Your task to perform on an android device: When is my next meeting? Image 0: 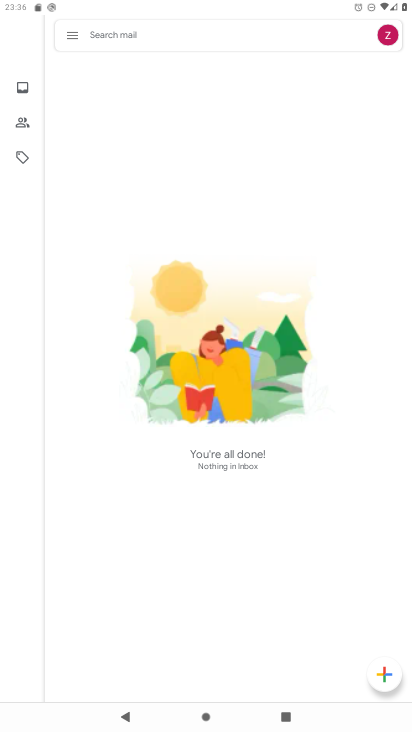
Step 0: press home button
Your task to perform on an android device: When is my next meeting? Image 1: 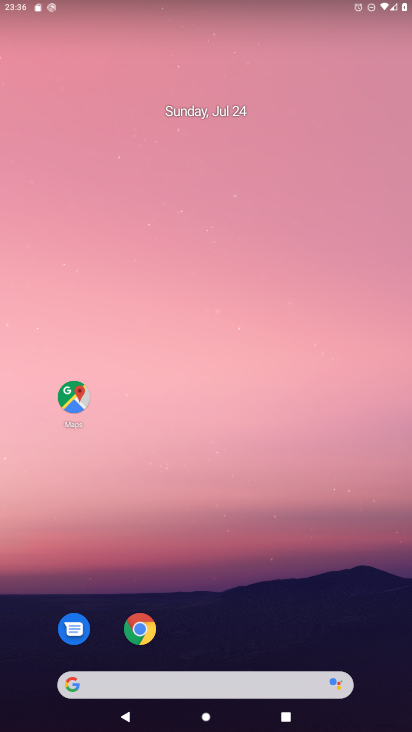
Step 1: drag from (202, 668) to (275, 294)
Your task to perform on an android device: When is my next meeting? Image 2: 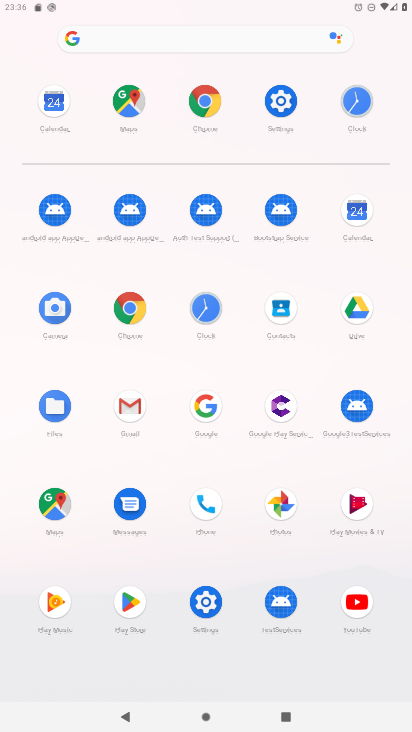
Step 2: drag from (159, 641) to (214, 367)
Your task to perform on an android device: When is my next meeting? Image 3: 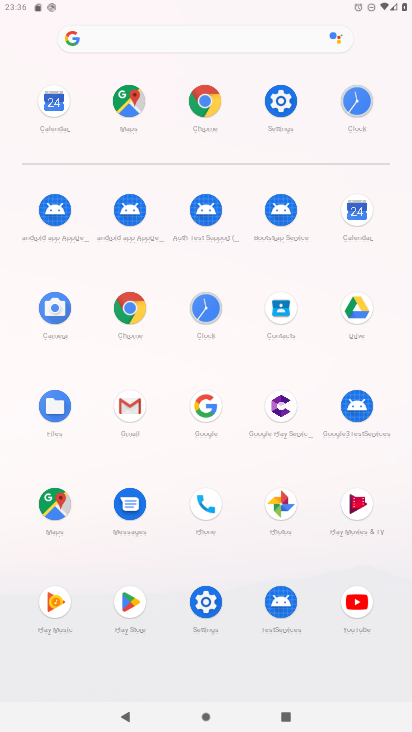
Step 3: click (353, 216)
Your task to perform on an android device: When is my next meeting? Image 4: 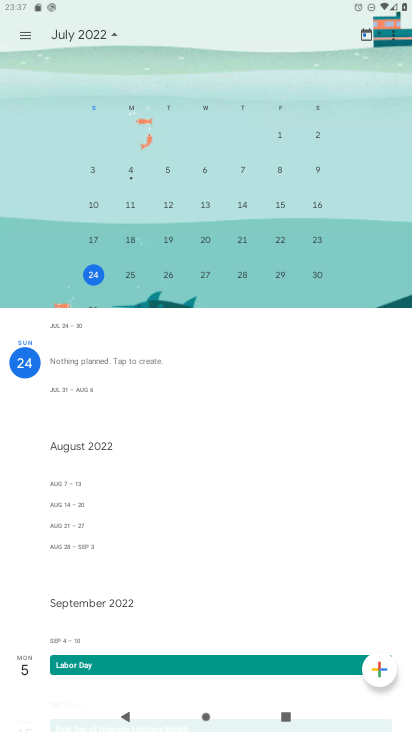
Step 4: click (95, 274)
Your task to perform on an android device: When is my next meeting? Image 5: 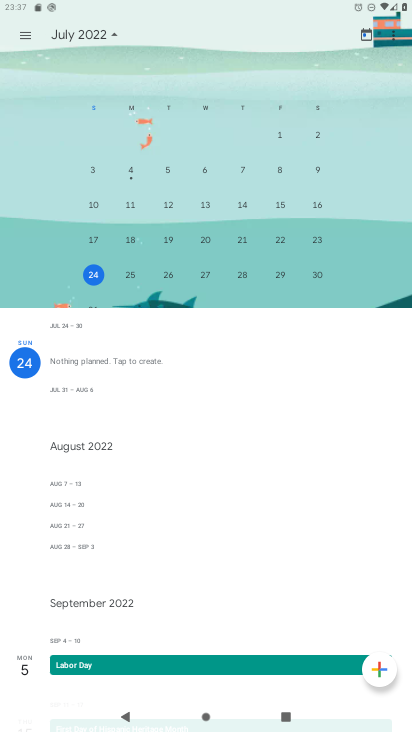
Step 5: task complete